Your task to perform on an android device: Go to Wikipedia Image 0: 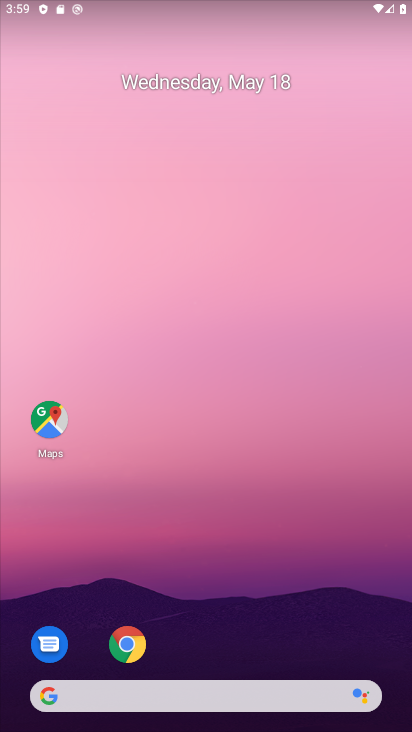
Step 0: drag from (197, 672) to (119, 65)
Your task to perform on an android device: Go to Wikipedia Image 1: 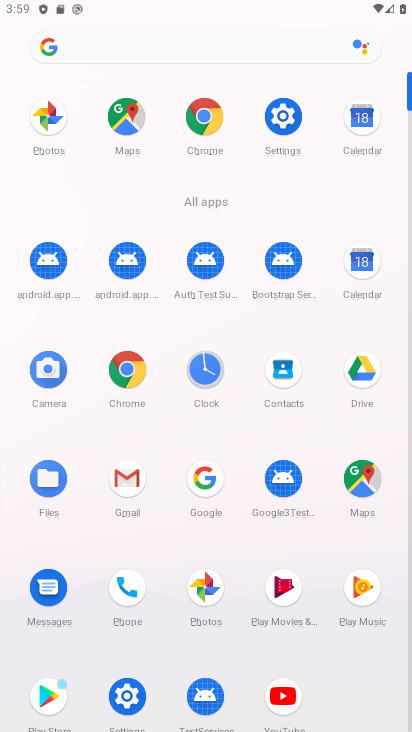
Step 1: click (213, 489)
Your task to perform on an android device: Go to Wikipedia Image 2: 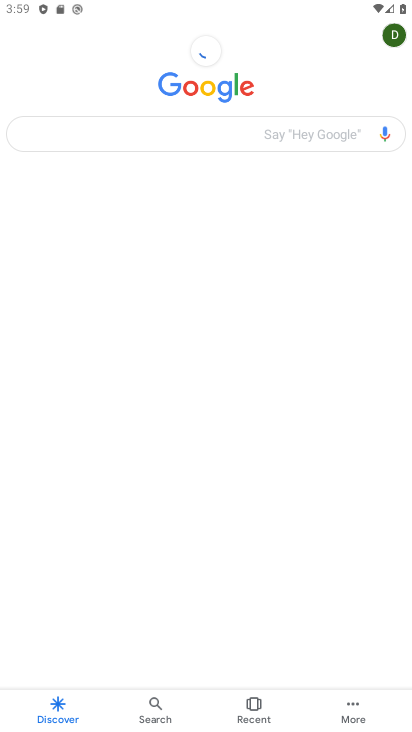
Step 2: press home button
Your task to perform on an android device: Go to Wikipedia Image 3: 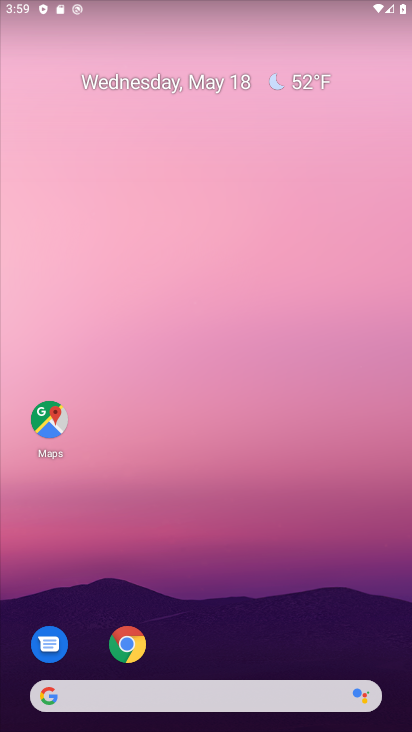
Step 3: drag from (245, 669) to (178, 203)
Your task to perform on an android device: Go to Wikipedia Image 4: 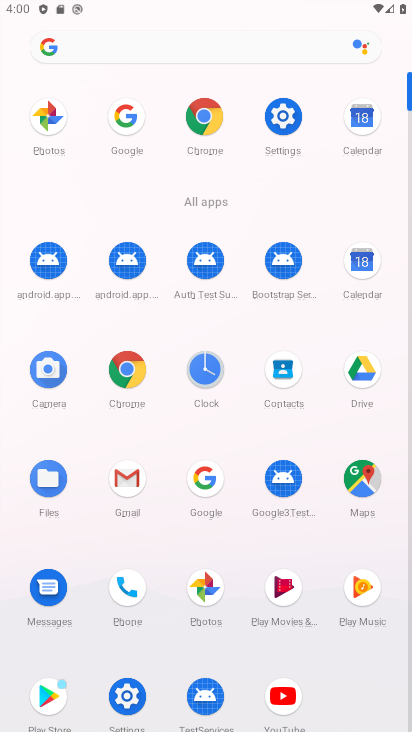
Step 4: click (122, 384)
Your task to perform on an android device: Go to Wikipedia Image 5: 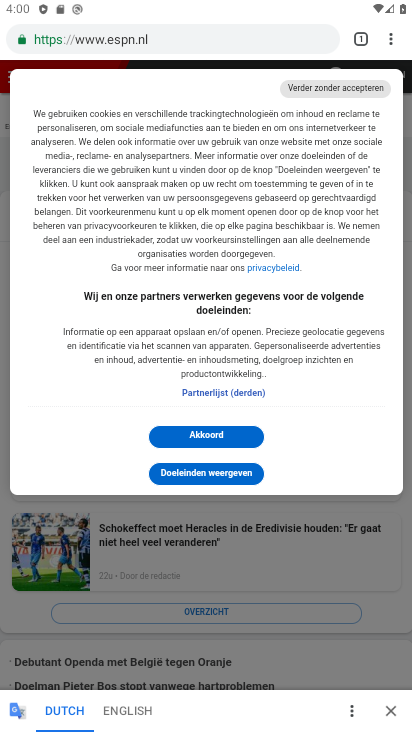
Step 5: click (190, 427)
Your task to perform on an android device: Go to Wikipedia Image 6: 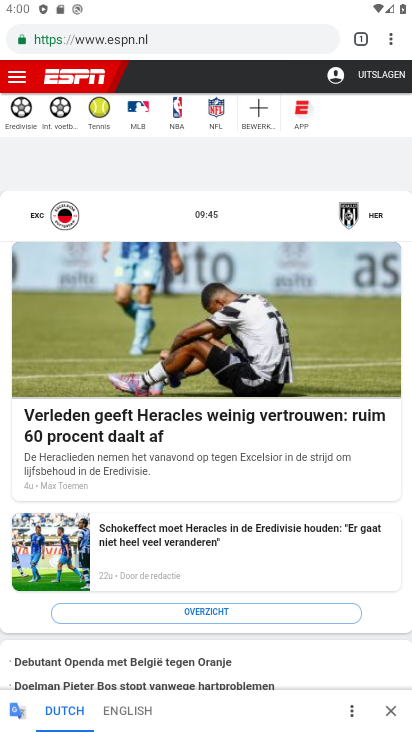
Step 6: click (353, 37)
Your task to perform on an android device: Go to Wikipedia Image 7: 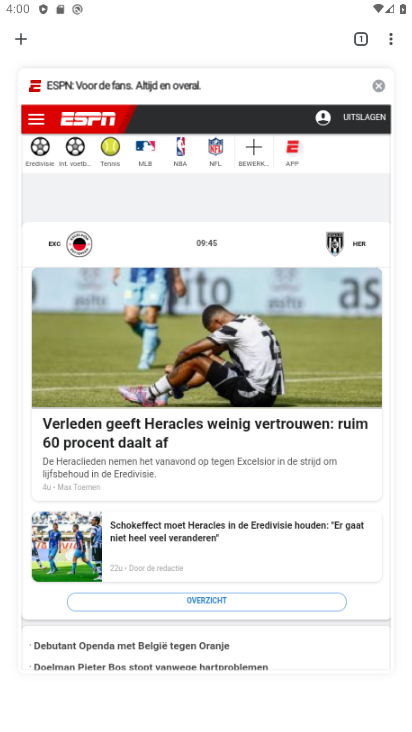
Step 7: click (23, 35)
Your task to perform on an android device: Go to Wikipedia Image 8: 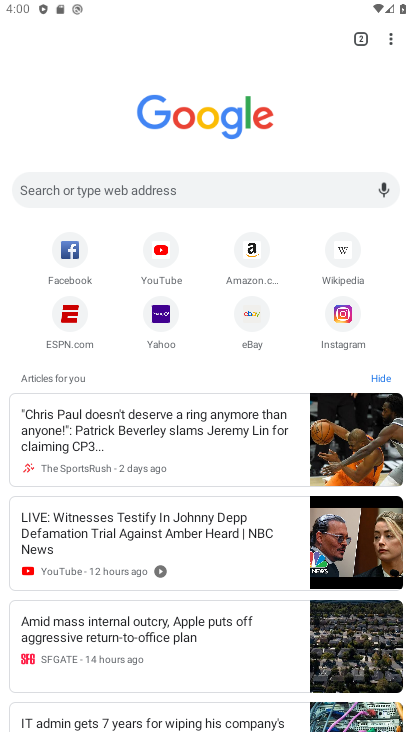
Step 8: click (340, 238)
Your task to perform on an android device: Go to Wikipedia Image 9: 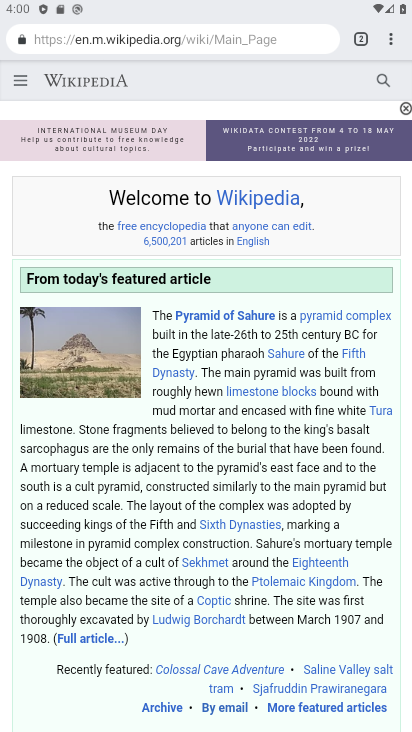
Step 9: task complete